Your task to perform on an android device: Search for Italian restaurants on Maps Image 0: 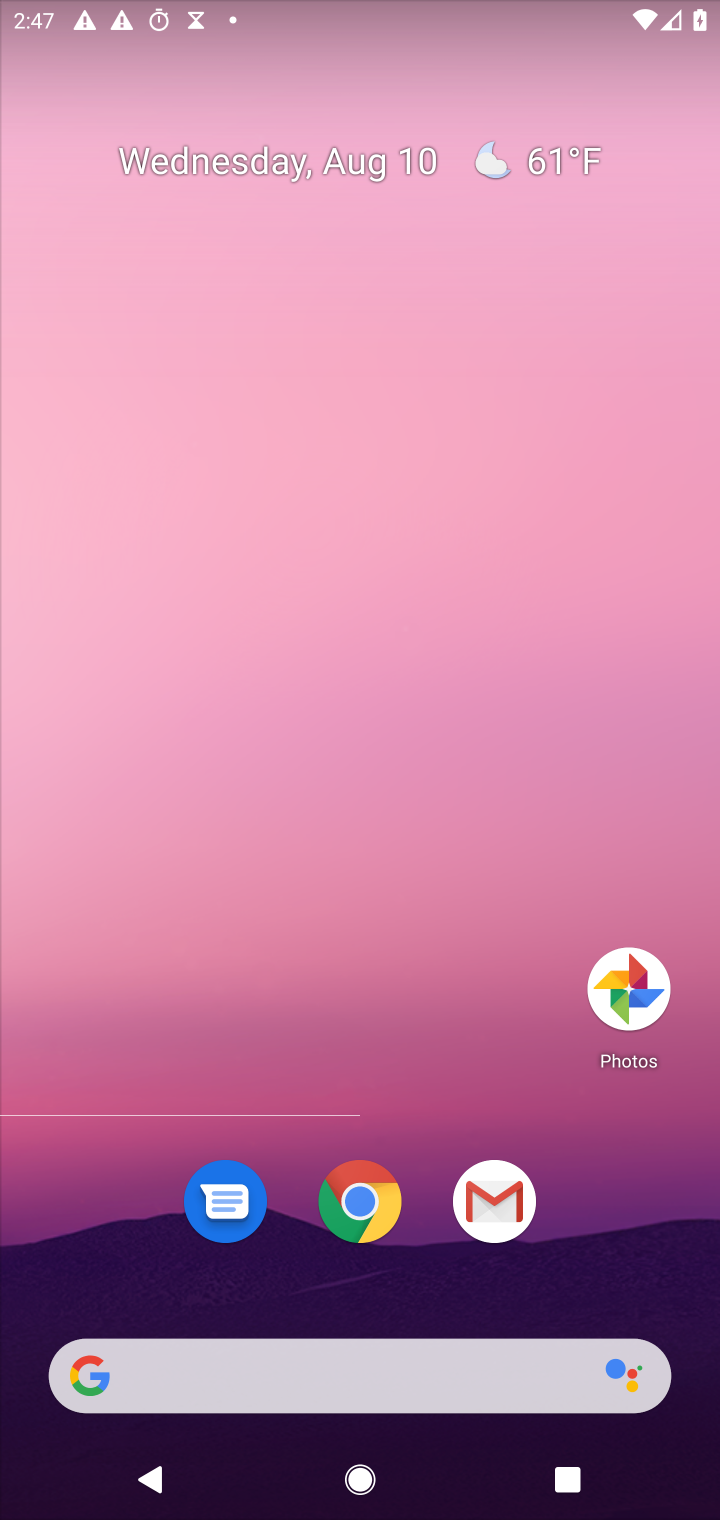
Step 0: drag from (398, 1088) to (422, 140)
Your task to perform on an android device: Search for Italian restaurants on Maps Image 1: 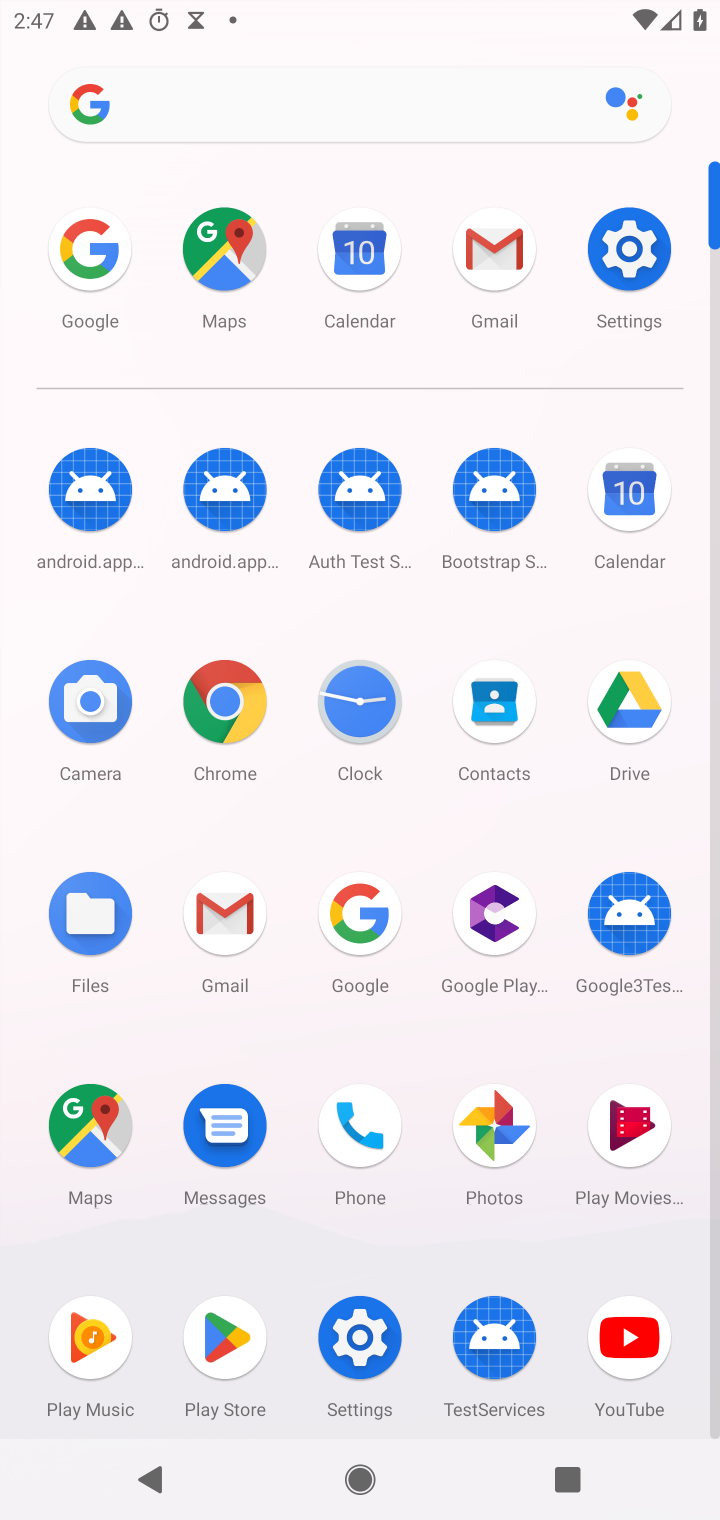
Step 1: click (104, 1135)
Your task to perform on an android device: Search for Italian restaurants on Maps Image 2: 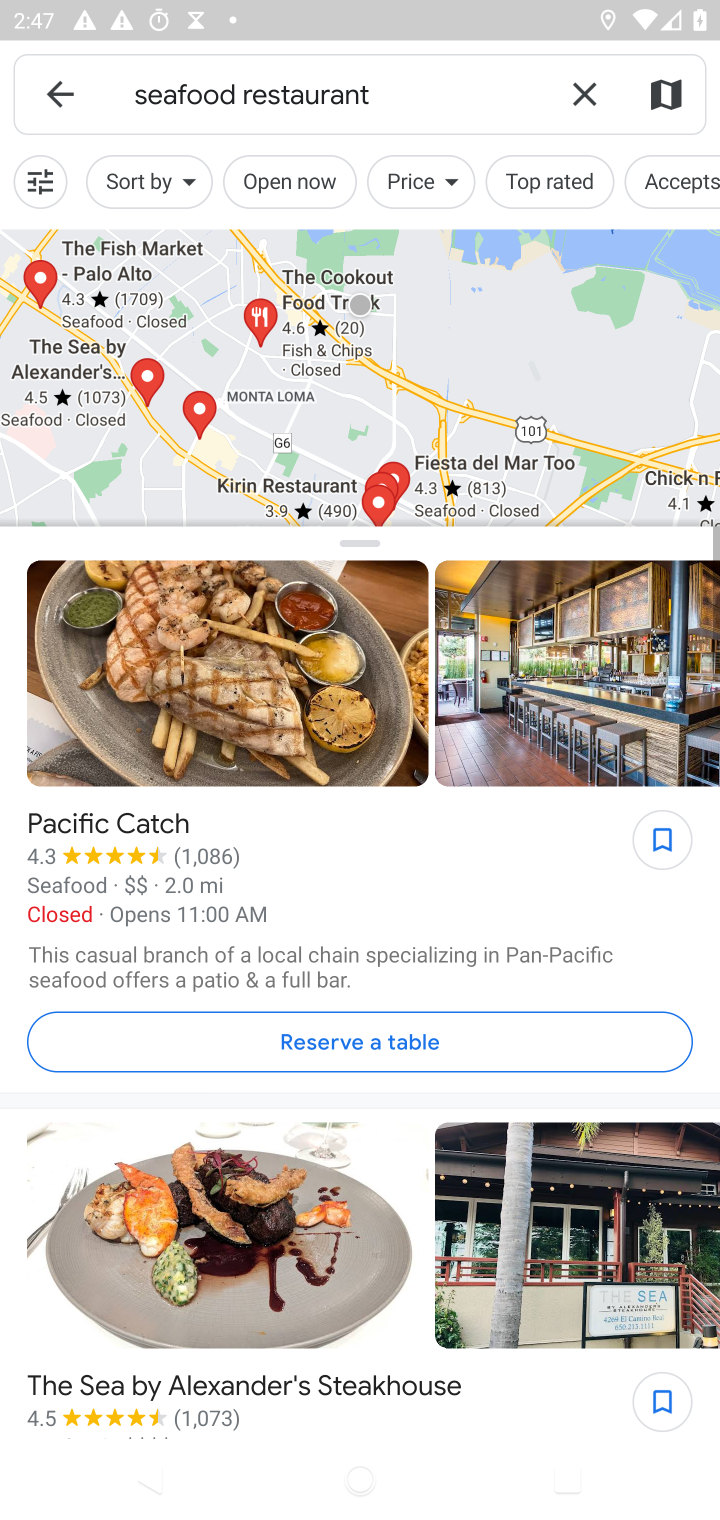
Step 2: press back button
Your task to perform on an android device: Search for Italian restaurants on Maps Image 3: 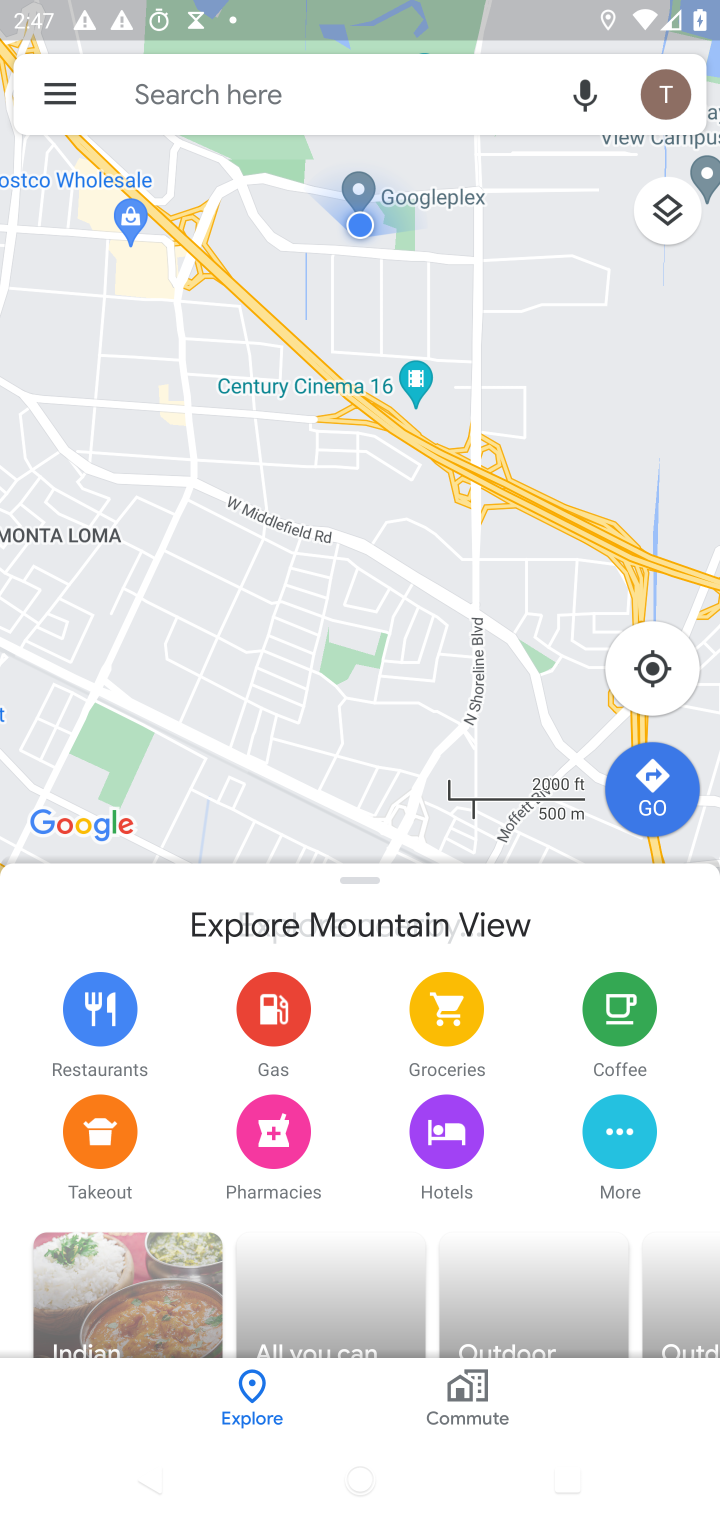
Step 3: click (338, 89)
Your task to perform on an android device: Search for Italian restaurants on Maps Image 4: 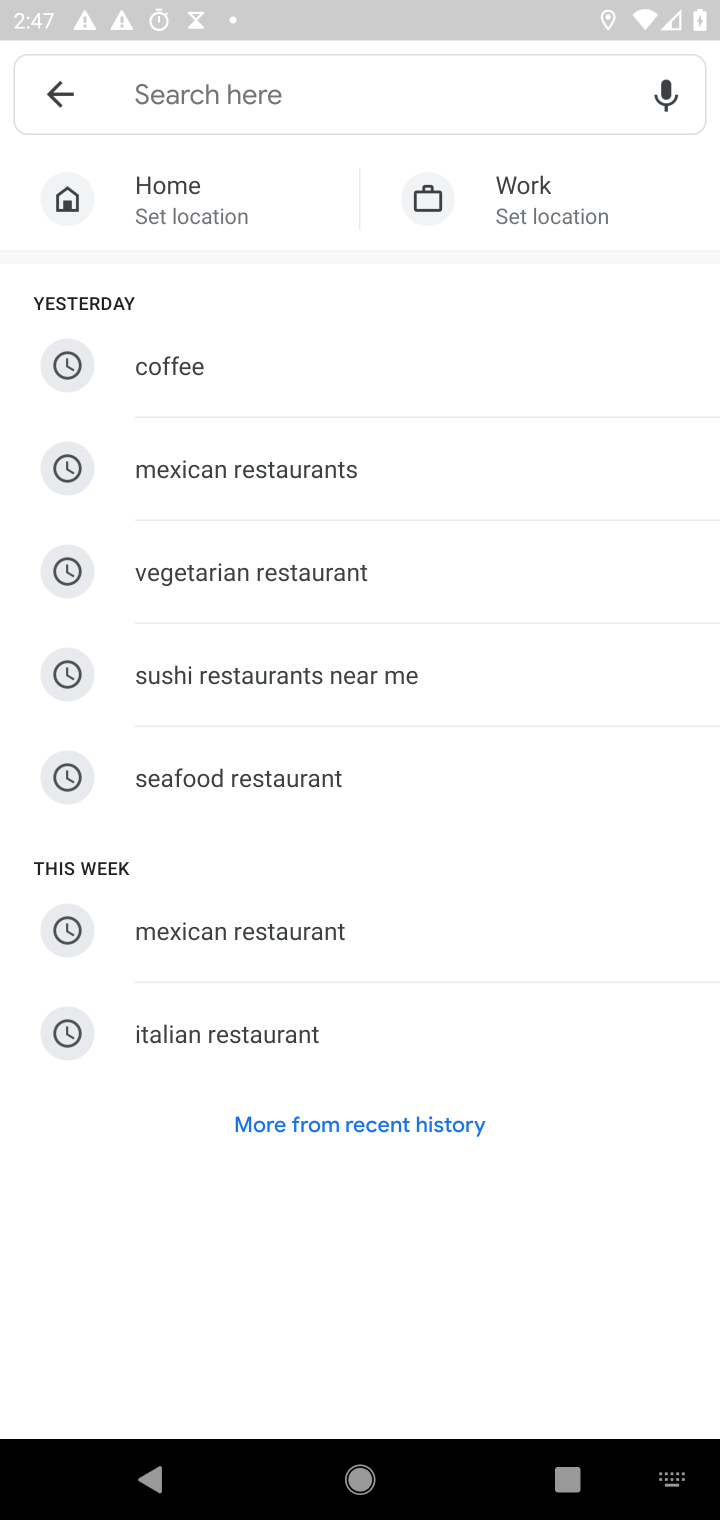
Step 4: click (232, 1041)
Your task to perform on an android device: Search for Italian restaurants on Maps Image 5: 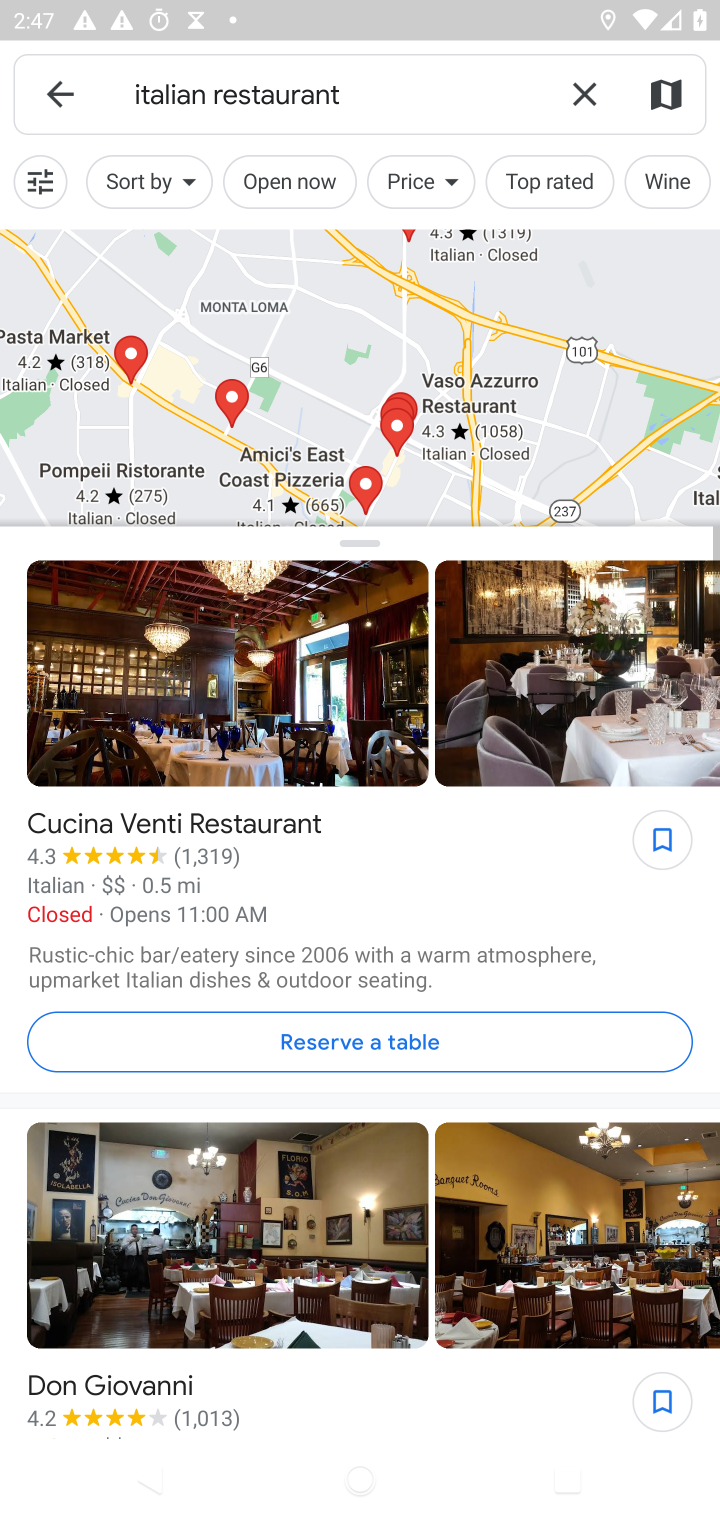
Step 5: task complete